Your task to perform on an android device: turn on priority inbox in the gmail app Image 0: 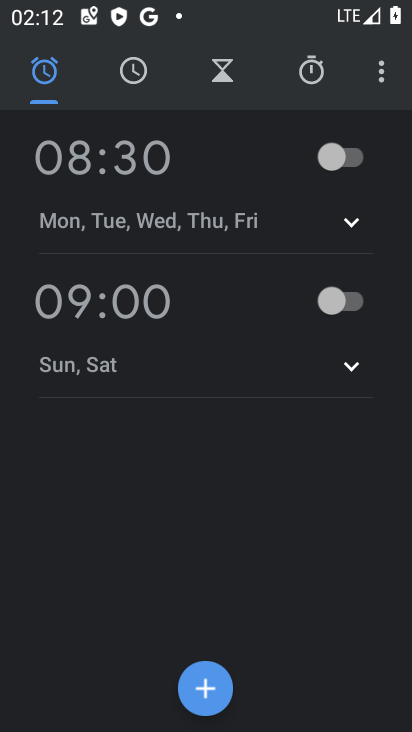
Step 0: press home button
Your task to perform on an android device: turn on priority inbox in the gmail app Image 1: 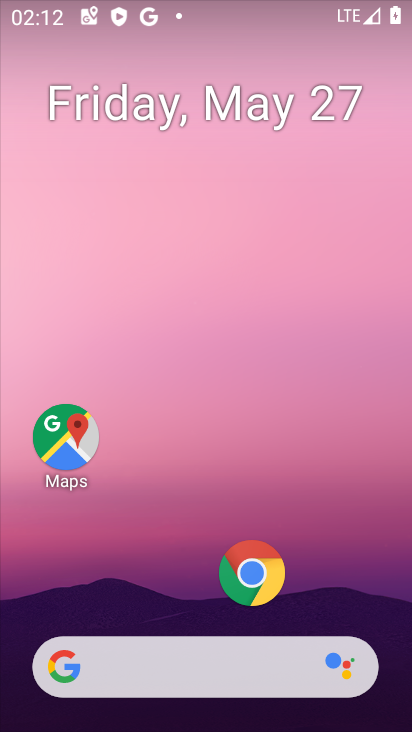
Step 1: drag from (205, 630) to (124, 88)
Your task to perform on an android device: turn on priority inbox in the gmail app Image 2: 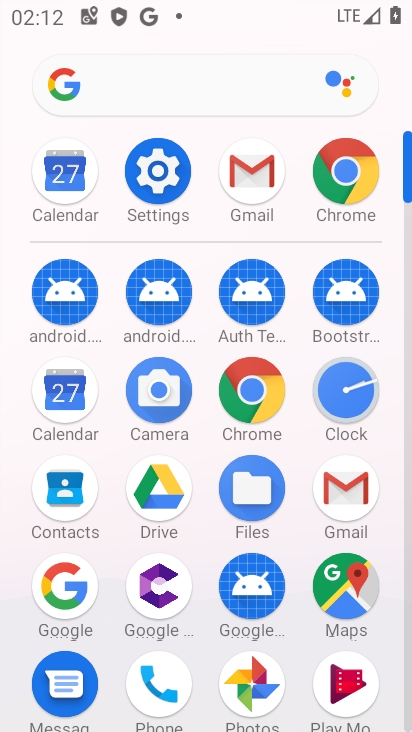
Step 2: click (349, 495)
Your task to perform on an android device: turn on priority inbox in the gmail app Image 3: 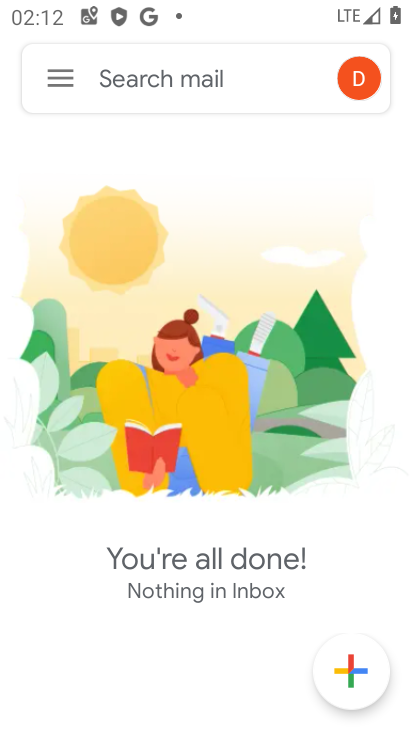
Step 3: click (55, 78)
Your task to perform on an android device: turn on priority inbox in the gmail app Image 4: 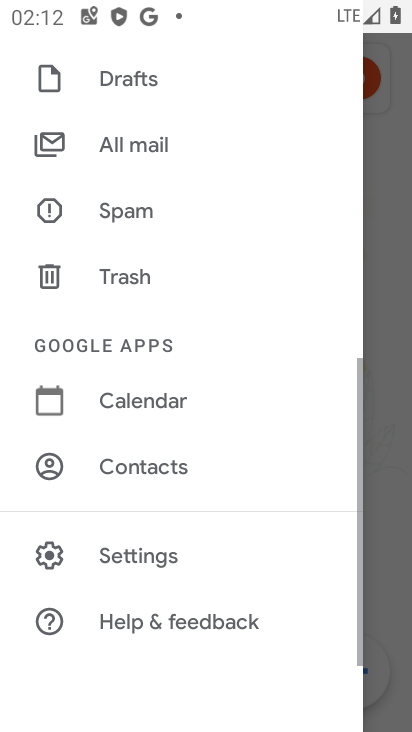
Step 4: click (106, 543)
Your task to perform on an android device: turn on priority inbox in the gmail app Image 5: 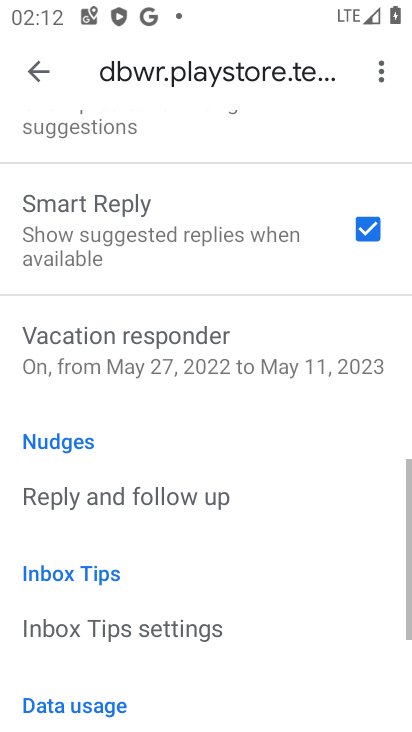
Step 5: drag from (140, 610) to (135, 261)
Your task to perform on an android device: turn on priority inbox in the gmail app Image 6: 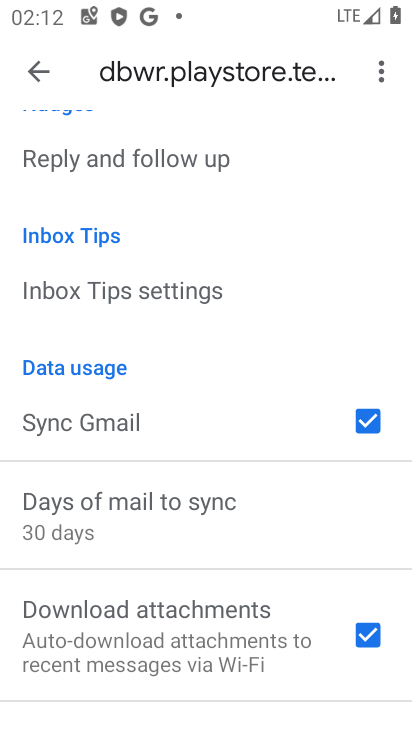
Step 6: drag from (134, 231) to (119, 717)
Your task to perform on an android device: turn on priority inbox in the gmail app Image 7: 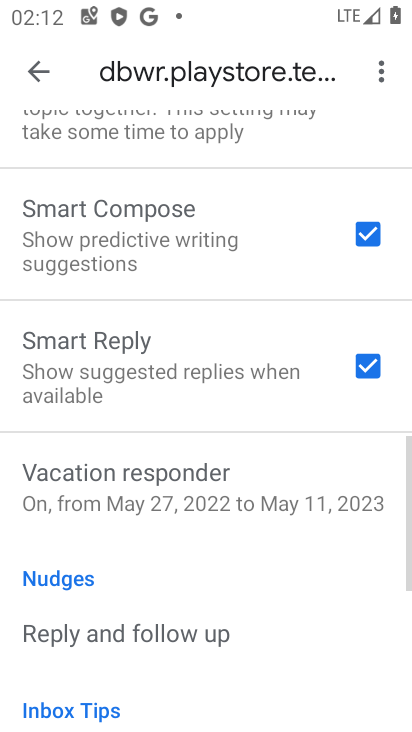
Step 7: drag from (233, 190) to (197, 645)
Your task to perform on an android device: turn on priority inbox in the gmail app Image 8: 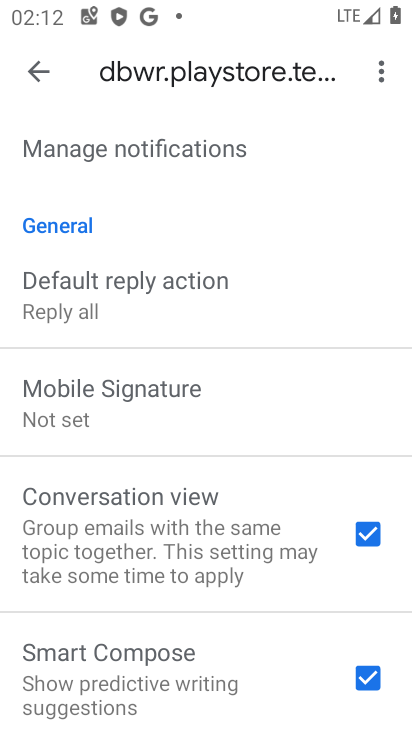
Step 8: drag from (189, 230) to (152, 526)
Your task to perform on an android device: turn on priority inbox in the gmail app Image 9: 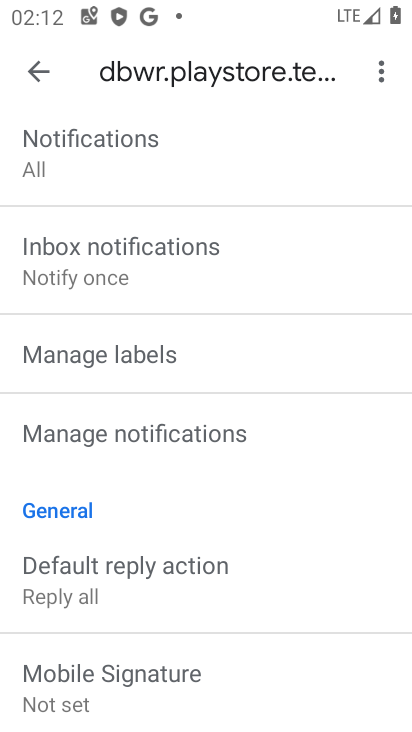
Step 9: drag from (128, 239) to (115, 517)
Your task to perform on an android device: turn on priority inbox in the gmail app Image 10: 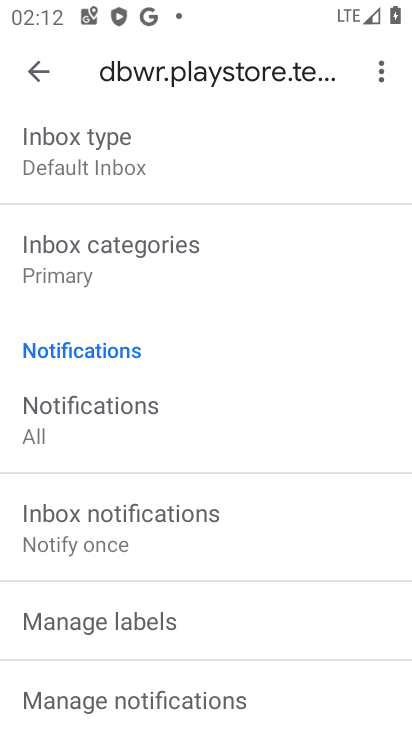
Step 10: drag from (134, 261) to (125, 547)
Your task to perform on an android device: turn on priority inbox in the gmail app Image 11: 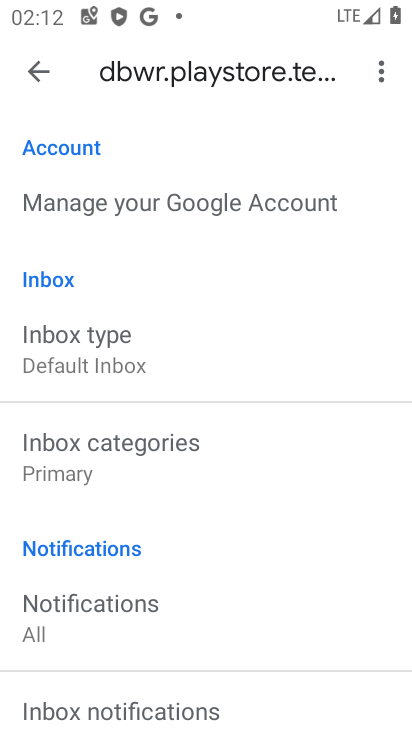
Step 11: click (130, 362)
Your task to perform on an android device: turn on priority inbox in the gmail app Image 12: 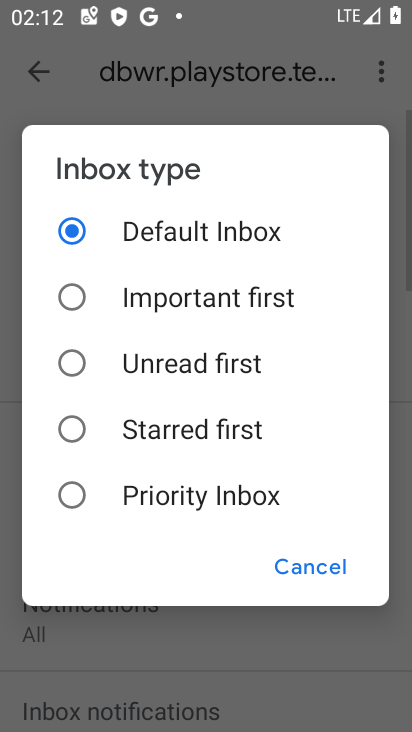
Step 12: click (150, 491)
Your task to perform on an android device: turn on priority inbox in the gmail app Image 13: 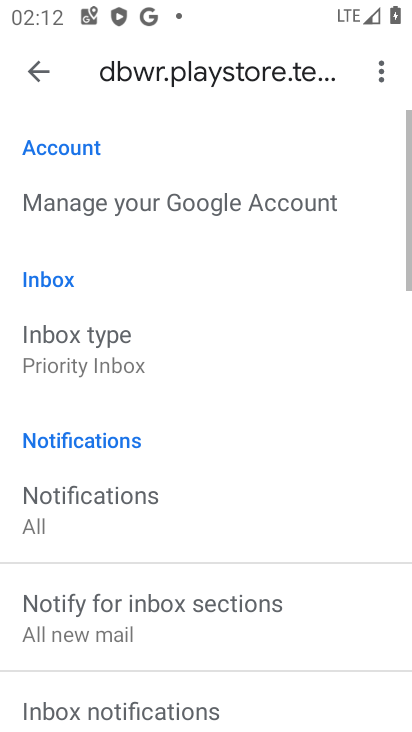
Step 13: task complete